Your task to perform on an android device: Open the calendar app, open the side menu, and click the "Day" option Image 0: 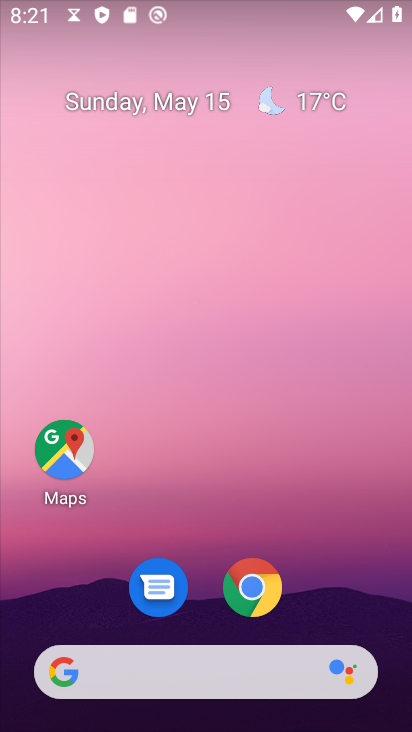
Step 0: drag from (337, 609) to (88, 189)
Your task to perform on an android device: Open the calendar app, open the side menu, and click the "Day" option Image 1: 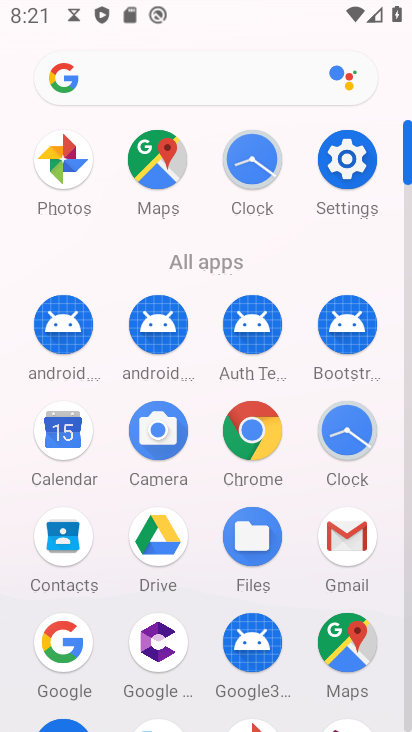
Step 1: click (52, 439)
Your task to perform on an android device: Open the calendar app, open the side menu, and click the "Day" option Image 2: 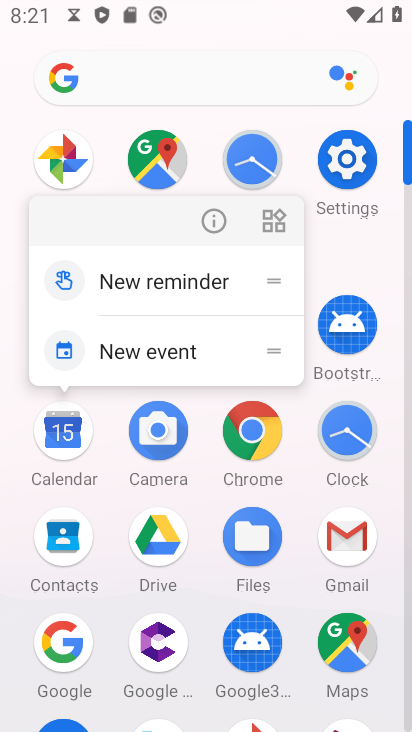
Step 2: click (54, 439)
Your task to perform on an android device: Open the calendar app, open the side menu, and click the "Day" option Image 3: 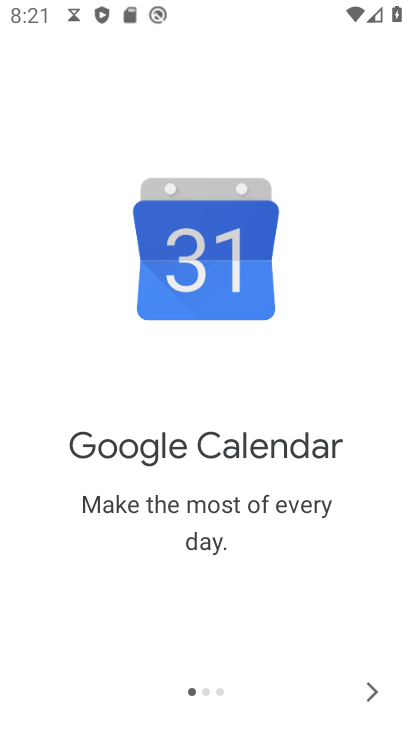
Step 3: click (354, 681)
Your task to perform on an android device: Open the calendar app, open the side menu, and click the "Day" option Image 4: 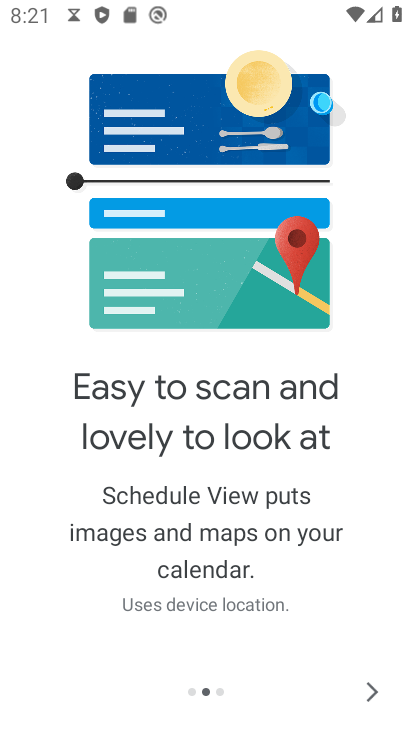
Step 4: click (372, 688)
Your task to perform on an android device: Open the calendar app, open the side menu, and click the "Day" option Image 5: 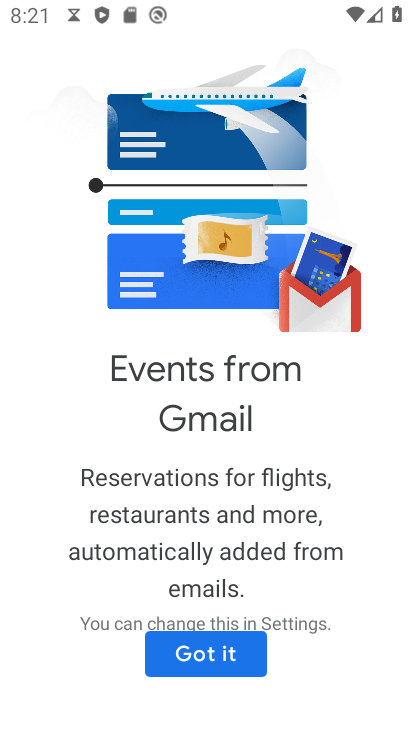
Step 5: click (196, 654)
Your task to perform on an android device: Open the calendar app, open the side menu, and click the "Day" option Image 6: 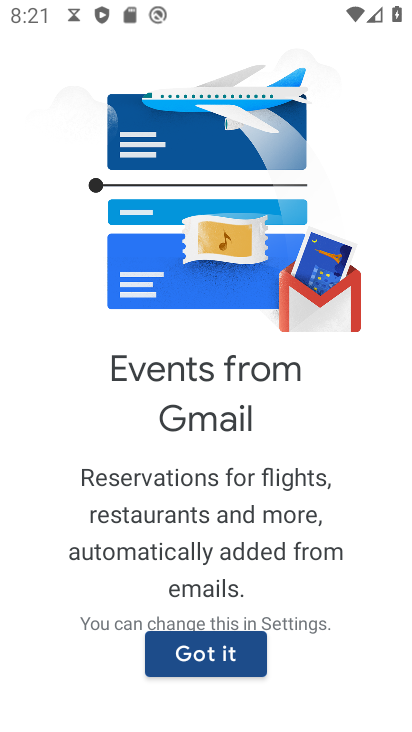
Step 6: click (207, 645)
Your task to perform on an android device: Open the calendar app, open the side menu, and click the "Day" option Image 7: 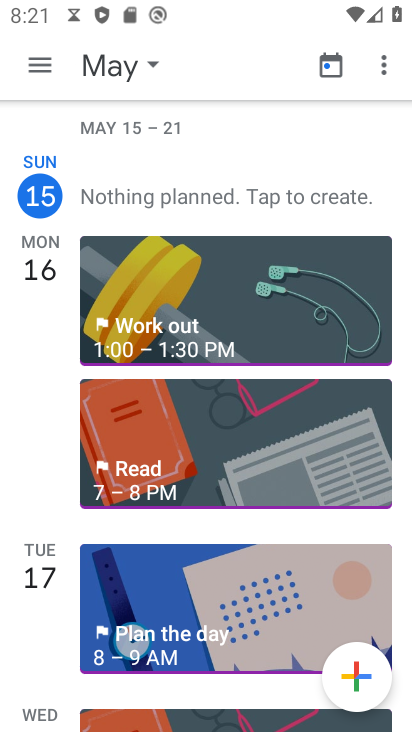
Step 7: click (30, 70)
Your task to perform on an android device: Open the calendar app, open the side menu, and click the "Day" option Image 8: 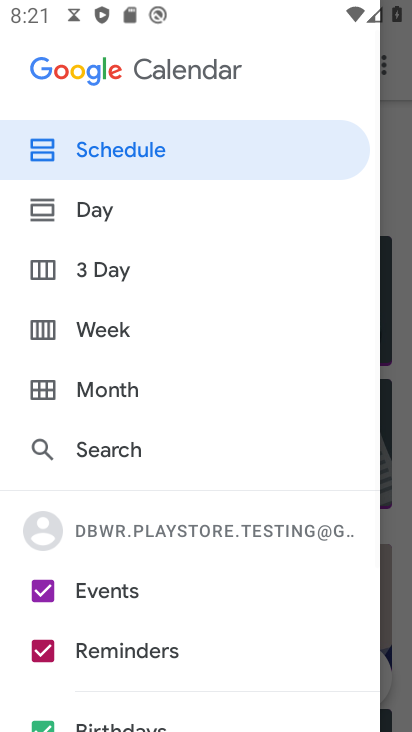
Step 8: click (101, 209)
Your task to perform on an android device: Open the calendar app, open the side menu, and click the "Day" option Image 9: 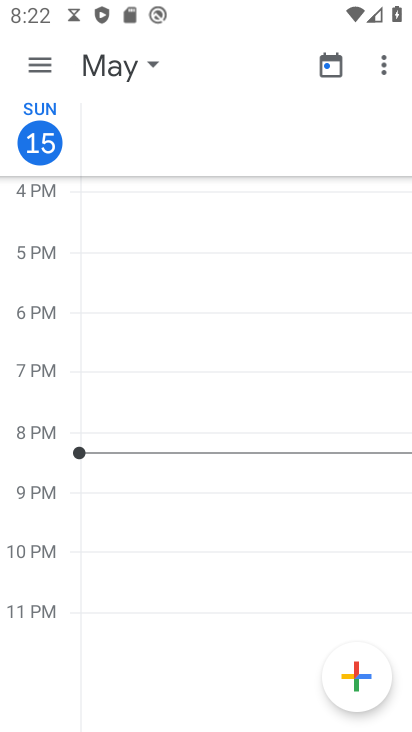
Step 9: task complete